Your task to perform on an android device: Go to wifi settings Image 0: 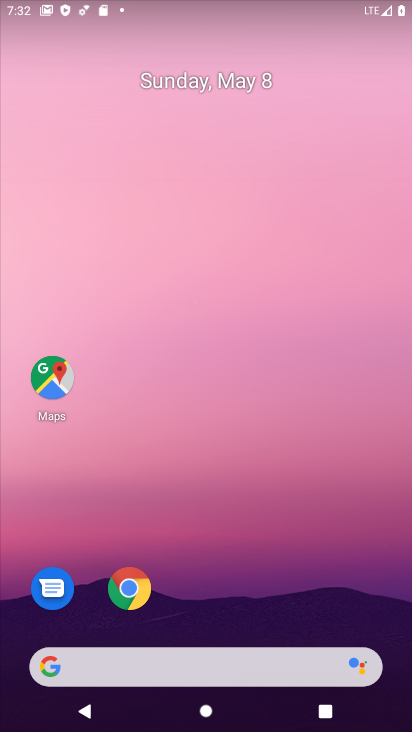
Step 0: drag from (163, 655) to (295, 52)
Your task to perform on an android device: Go to wifi settings Image 1: 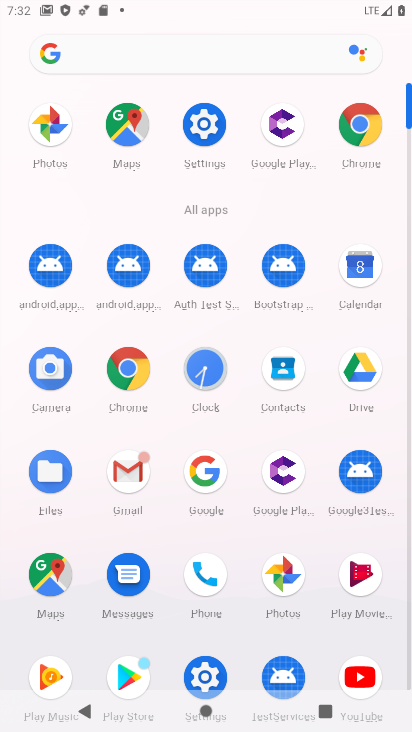
Step 1: click (213, 131)
Your task to perform on an android device: Go to wifi settings Image 2: 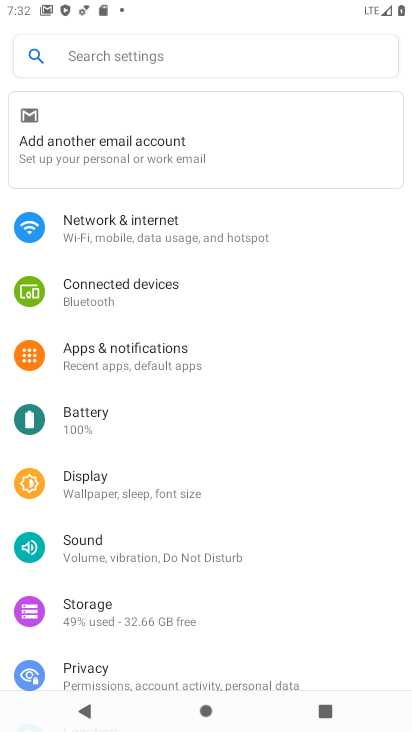
Step 2: click (152, 235)
Your task to perform on an android device: Go to wifi settings Image 3: 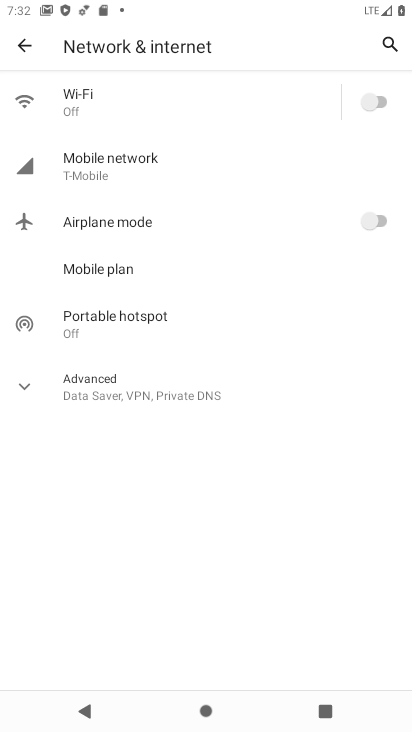
Step 3: click (100, 109)
Your task to perform on an android device: Go to wifi settings Image 4: 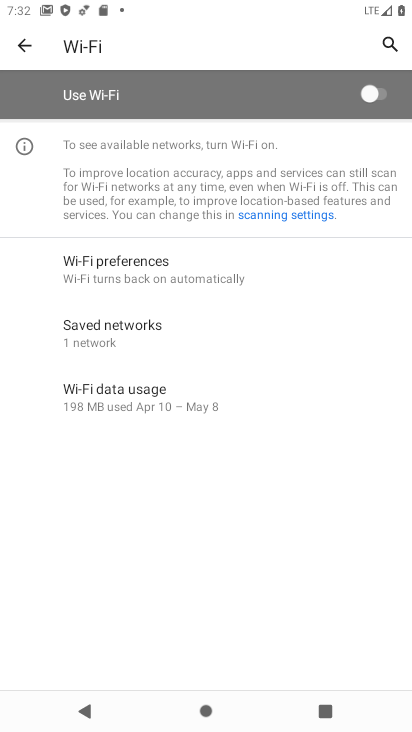
Step 4: task complete